Your task to perform on an android device: Open Google Chrome and open the bookmarks view Image 0: 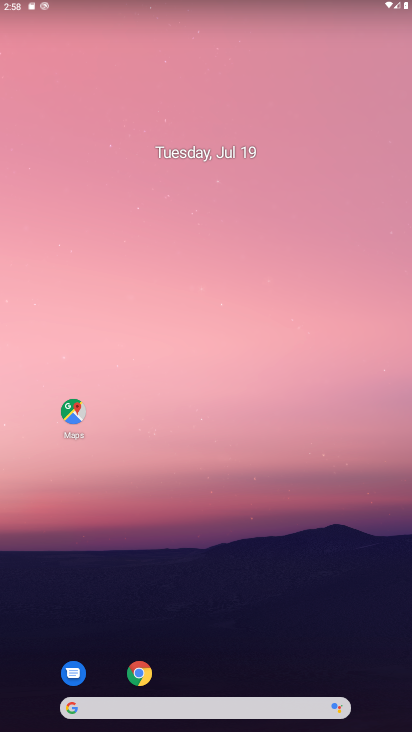
Step 0: click (143, 690)
Your task to perform on an android device: Open Google Chrome and open the bookmarks view Image 1: 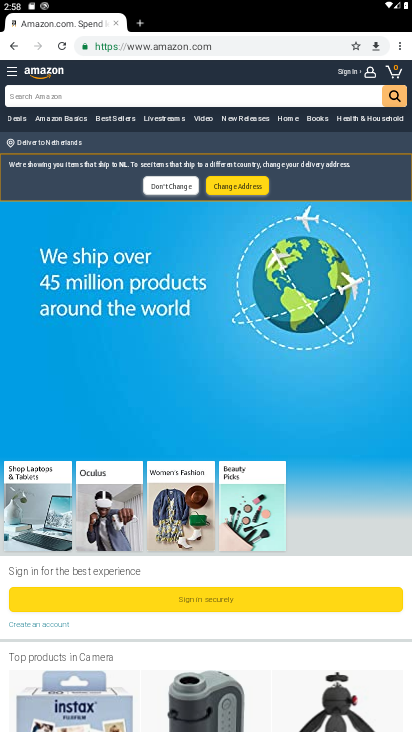
Step 1: click (397, 45)
Your task to perform on an android device: Open Google Chrome and open the bookmarks view Image 2: 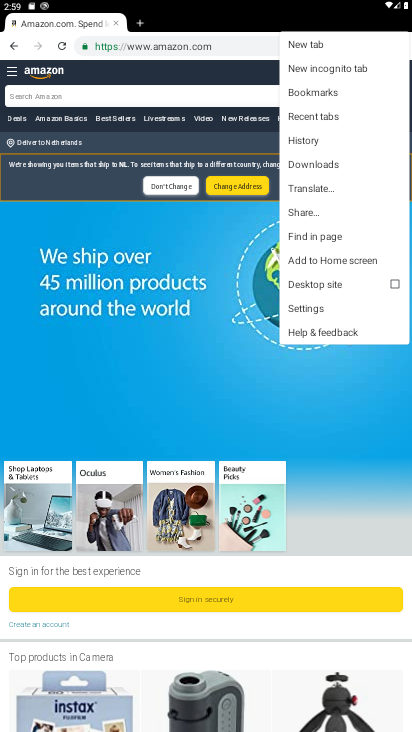
Step 2: click (327, 97)
Your task to perform on an android device: Open Google Chrome and open the bookmarks view Image 3: 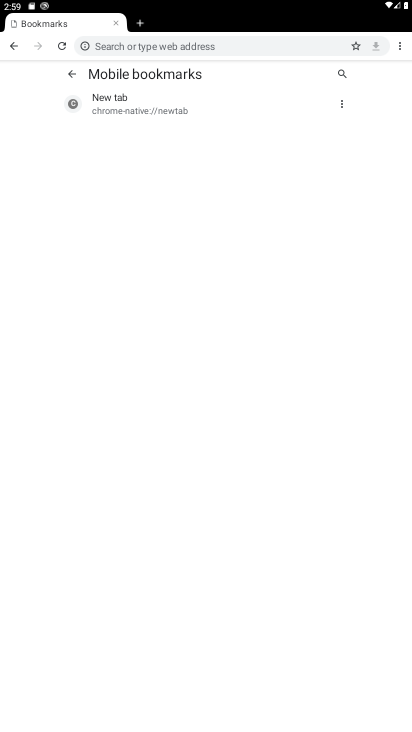
Step 3: click (149, 112)
Your task to perform on an android device: Open Google Chrome and open the bookmarks view Image 4: 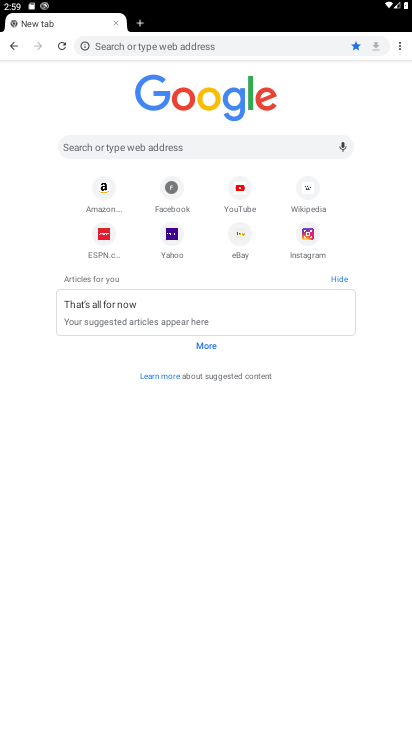
Step 4: task complete